Your task to perform on an android device: Open Google Chrome Image 0: 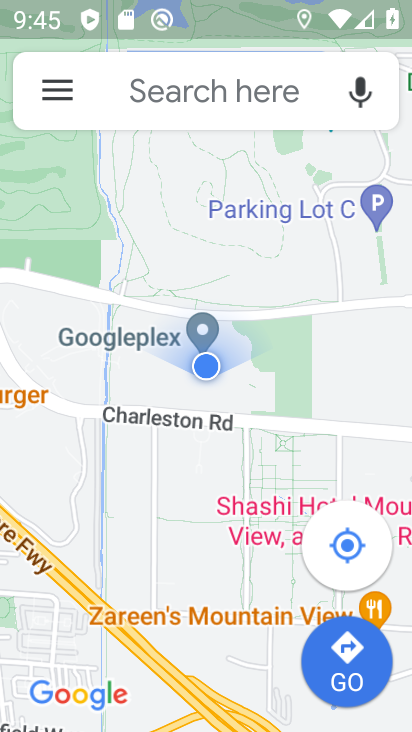
Step 0: press home button
Your task to perform on an android device: Open Google Chrome Image 1: 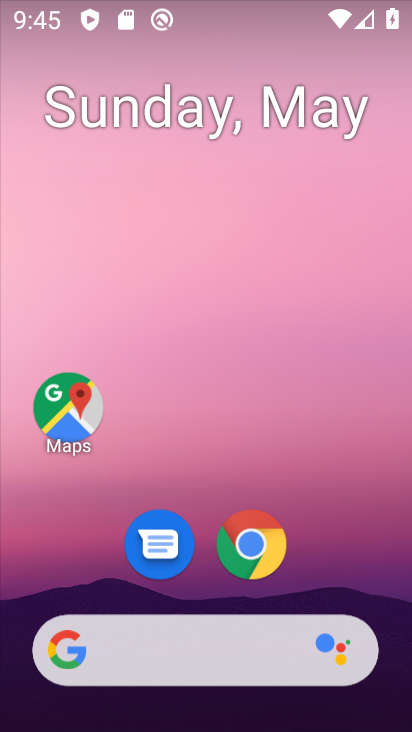
Step 1: drag from (317, 568) to (287, 432)
Your task to perform on an android device: Open Google Chrome Image 2: 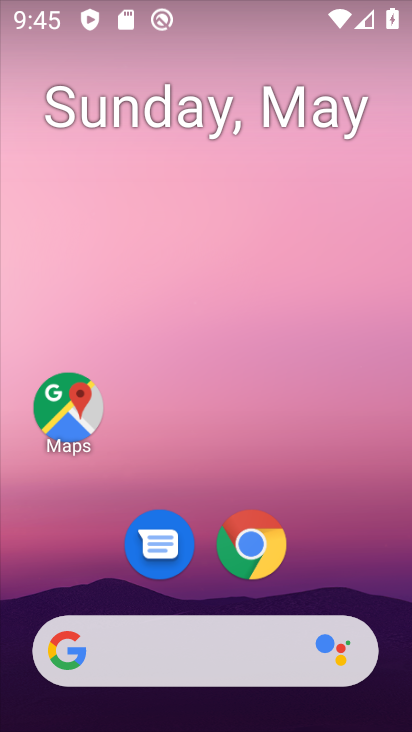
Step 2: click (262, 538)
Your task to perform on an android device: Open Google Chrome Image 3: 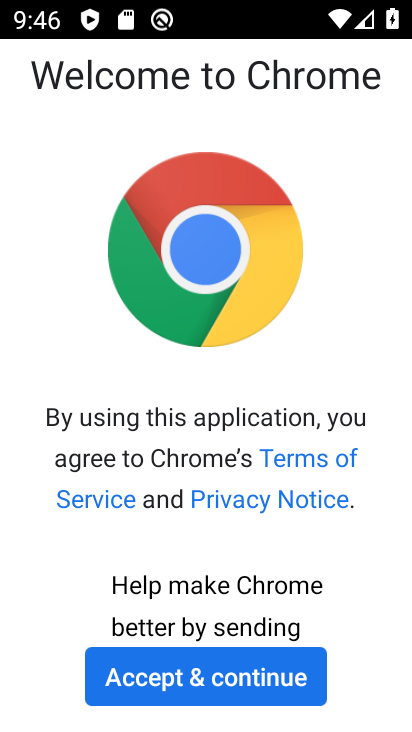
Step 3: click (179, 678)
Your task to perform on an android device: Open Google Chrome Image 4: 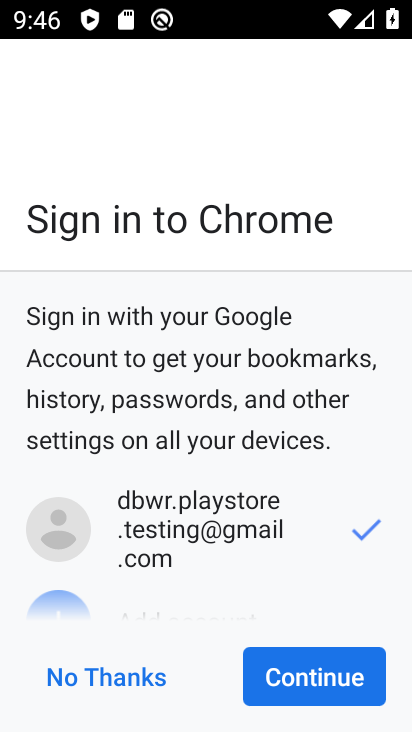
Step 4: click (283, 679)
Your task to perform on an android device: Open Google Chrome Image 5: 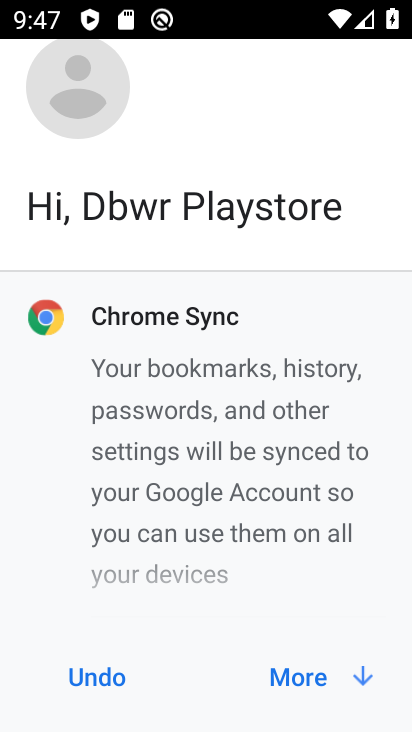
Step 5: click (276, 676)
Your task to perform on an android device: Open Google Chrome Image 6: 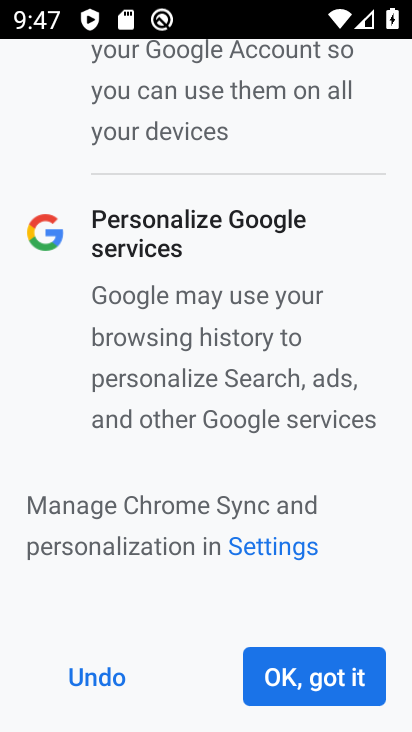
Step 6: click (313, 676)
Your task to perform on an android device: Open Google Chrome Image 7: 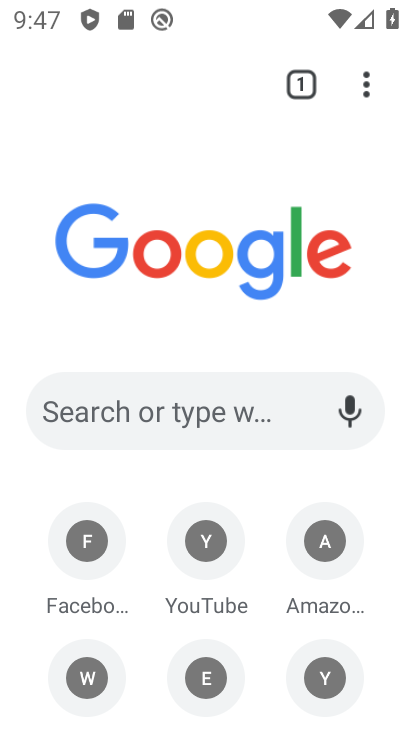
Step 7: task complete